Your task to perform on an android device: Clear the cart on target. Add macbook pro to the cart on target, then select checkout. Image 0: 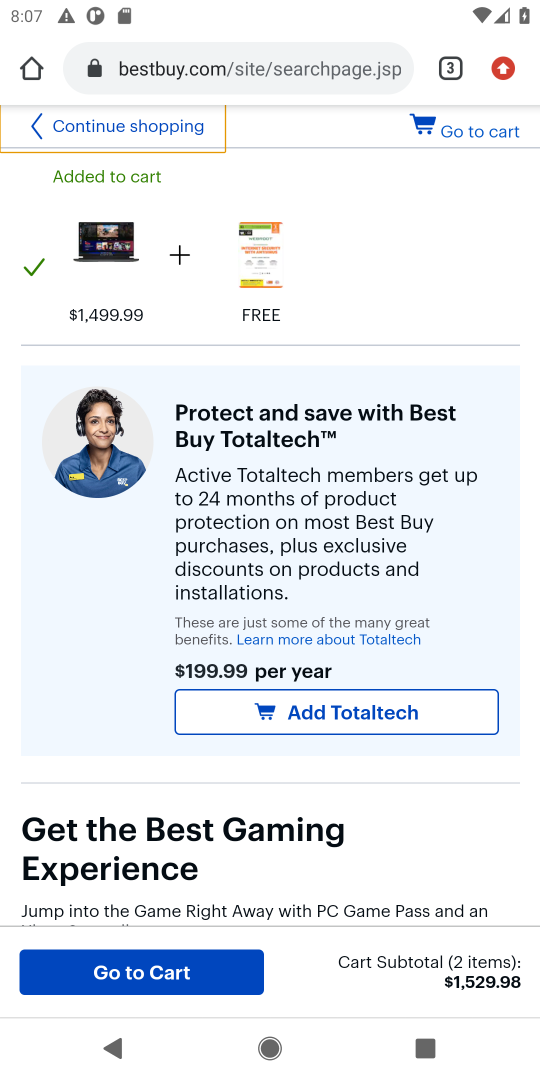
Step 0: press home button
Your task to perform on an android device: Clear the cart on target. Add macbook pro to the cart on target, then select checkout. Image 1: 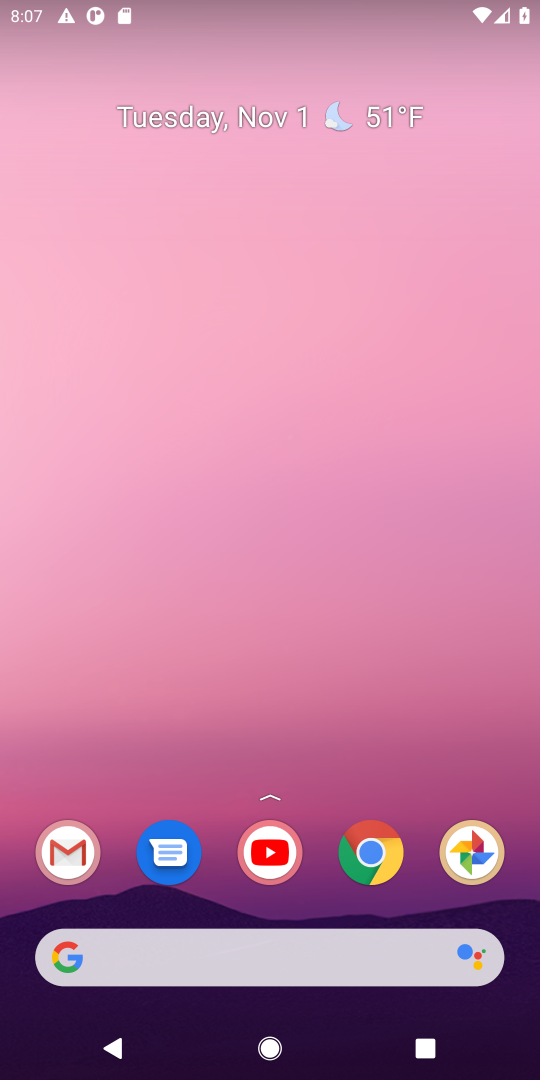
Step 1: drag from (314, 897) to (239, 91)
Your task to perform on an android device: Clear the cart on target. Add macbook pro to the cart on target, then select checkout. Image 2: 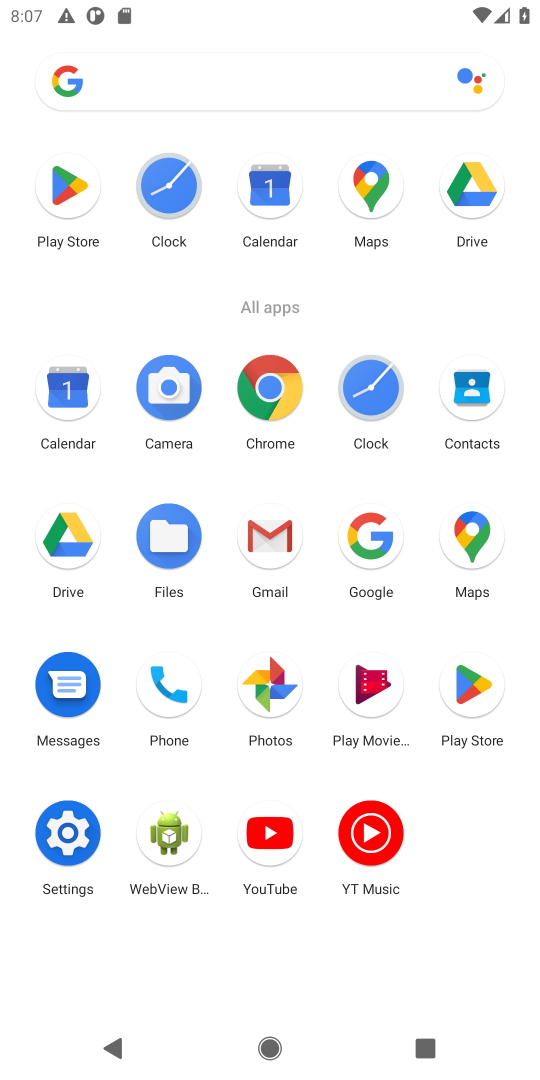
Step 2: click (383, 572)
Your task to perform on an android device: Clear the cart on target. Add macbook pro to the cart on target, then select checkout. Image 3: 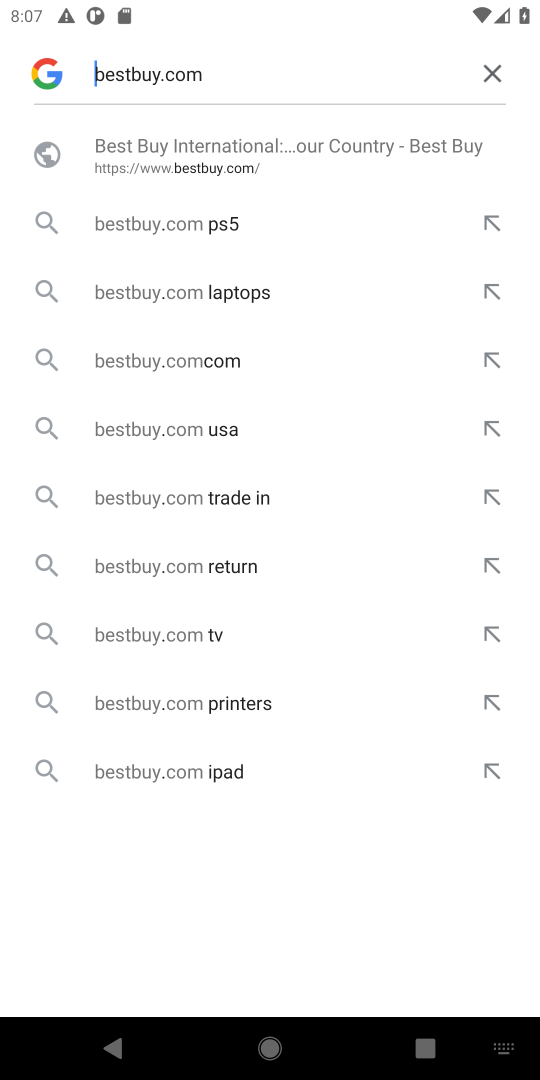
Step 3: click (487, 81)
Your task to perform on an android device: Clear the cart on target. Add macbook pro to the cart on target, then select checkout. Image 4: 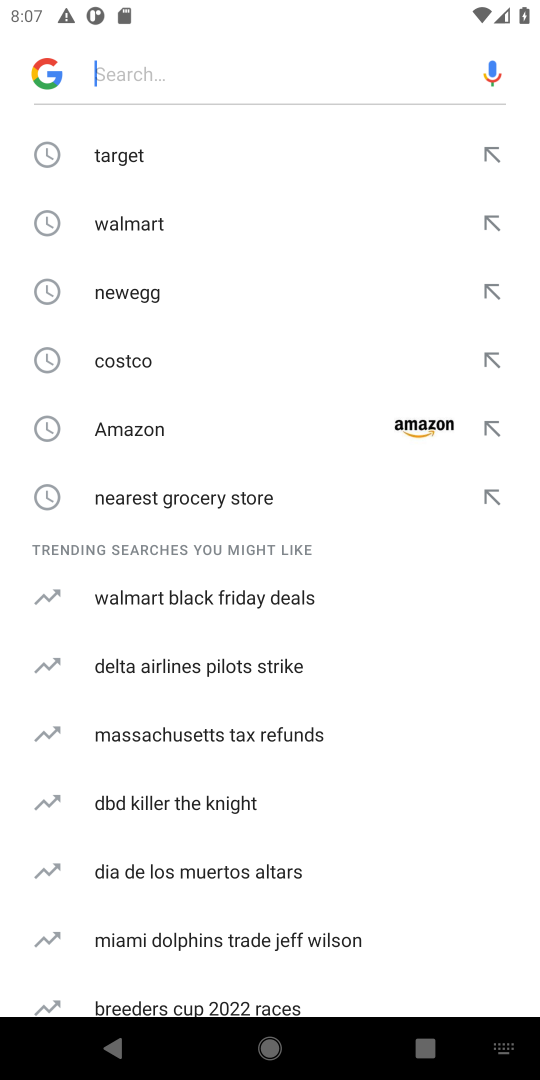
Step 4: type "target"
Your task to perform on an android device: Clear the cart on target. Add macbook pro to the cart on target, then select checkout. Image 5: 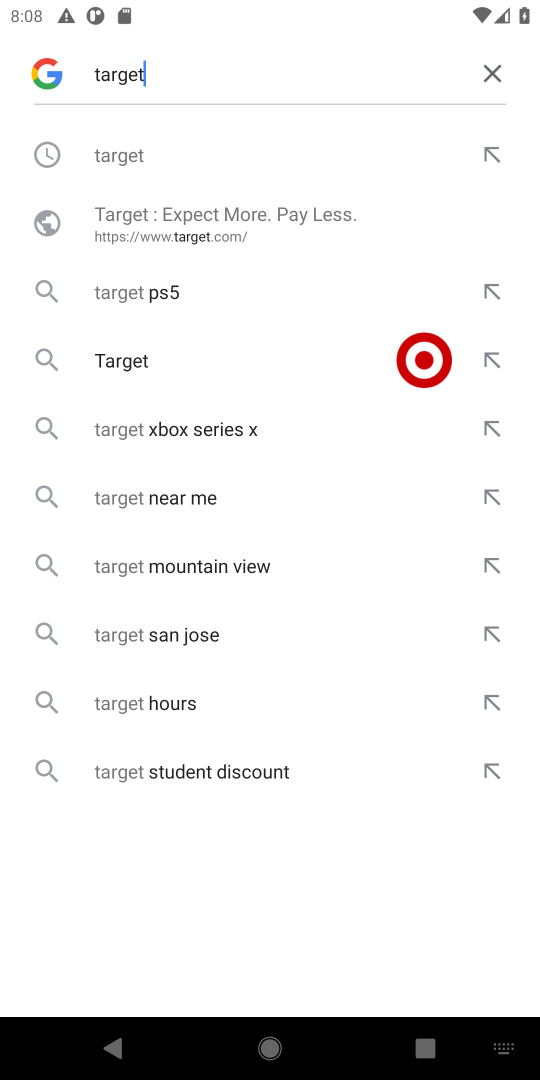
Step 5: click (350, 126)
Your task to perform on an android device: Clear the cart on target. Add macbook pro to the cart on target, then select checkout. Image 6: 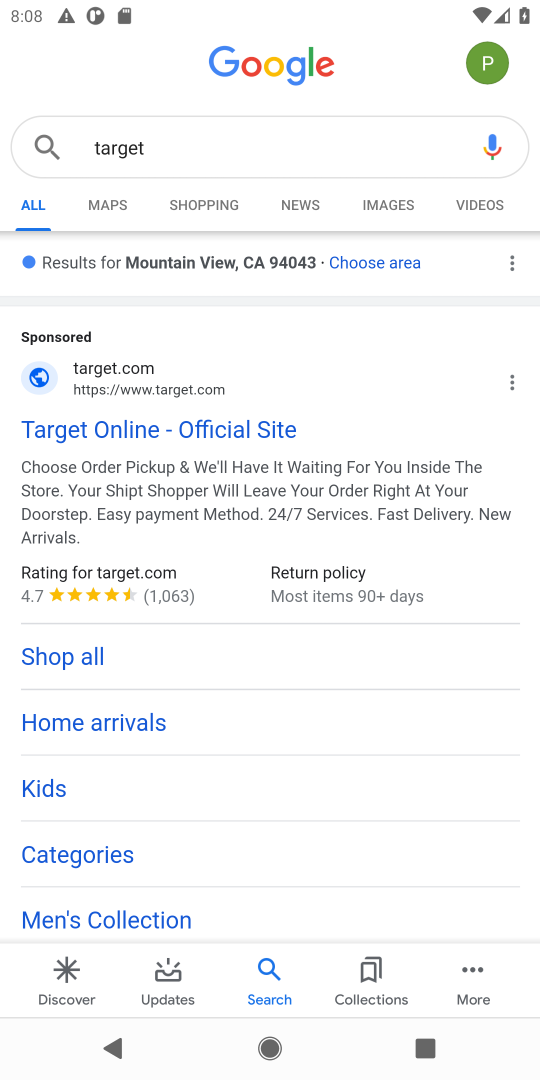
Step 6: click (146, 436)
Your task to perform on an android device: Clear the cart on target. Add macbook pro to the cart on target, then select checkout. Image 7: 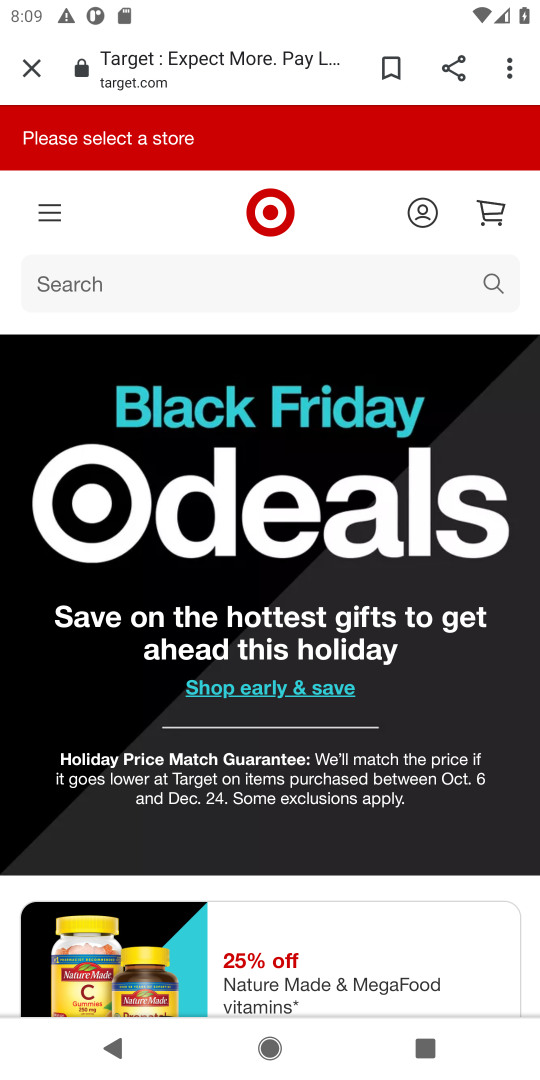
Step 7: click (239, 283)
Your task to perform on an android device: Clear the cart on target. Add macbook pro to the cart on target, then select checkout. Image 8: 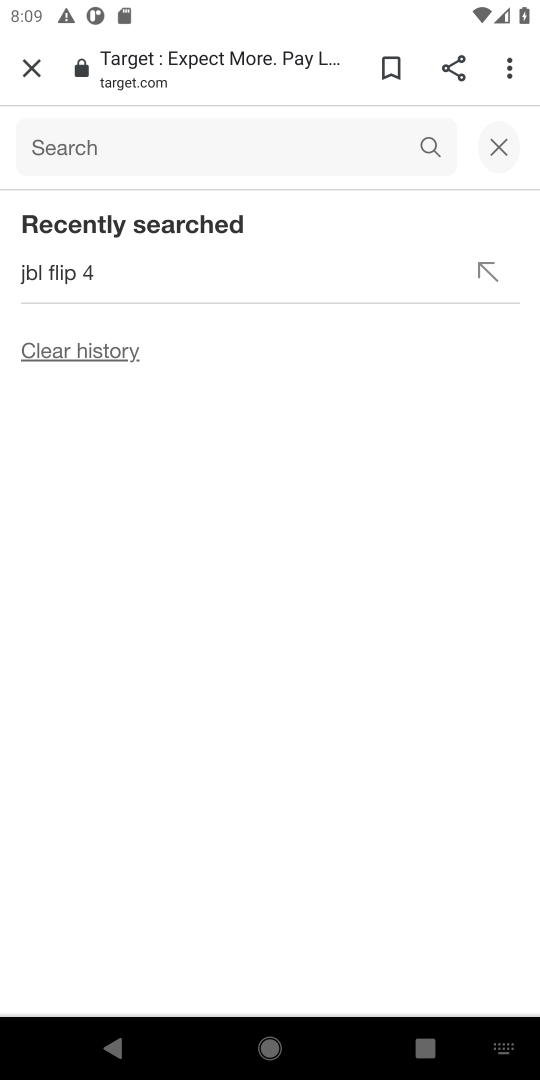
Step 8: type "macbook pro"
Your task to perform on an android device: Clear the cart on target. Add macbook pro to the cart on target, then select checkout. Image 9: 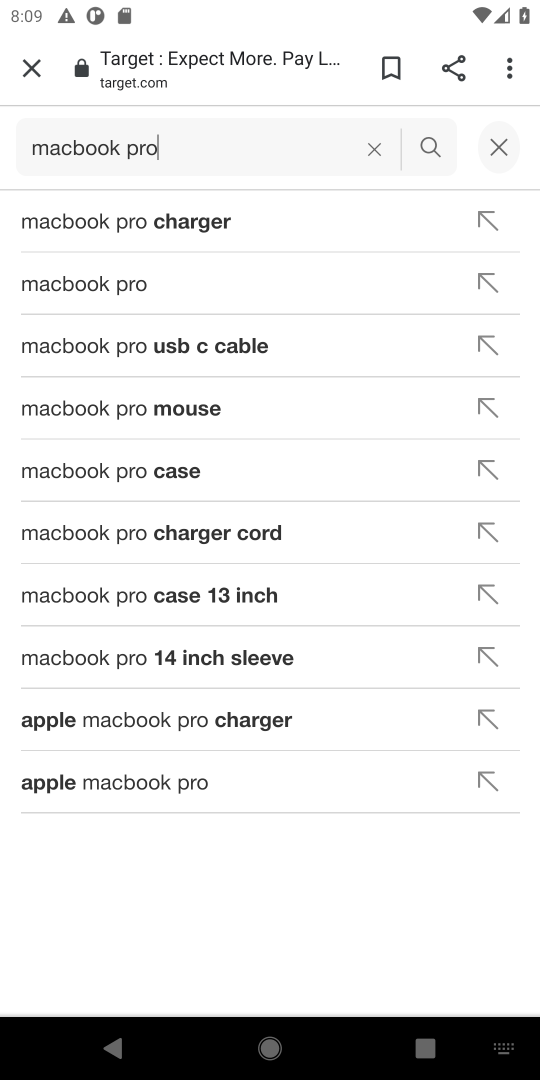
Step 9: click (92, 295)
Your task to perform on an android device: Clear the cart on target. Add macbook pro to the cart on target, then select checkout. Image 10: 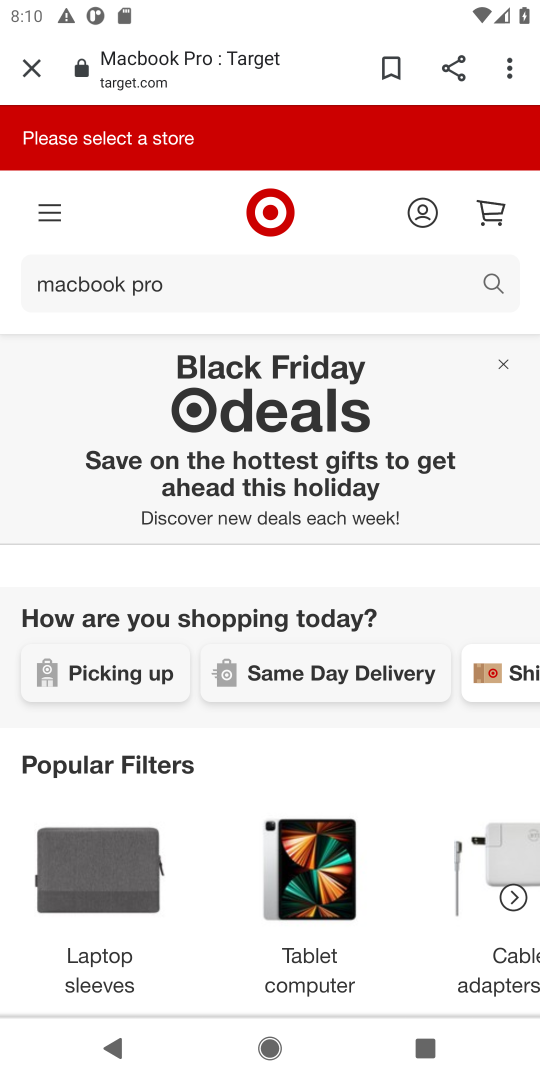
Step 10: drag from (196, 825) to (197, 358)
Your task to perform on an android device: Clear the cart on target. Add macbook pro to the cart on target, then select checkout. Image 11: 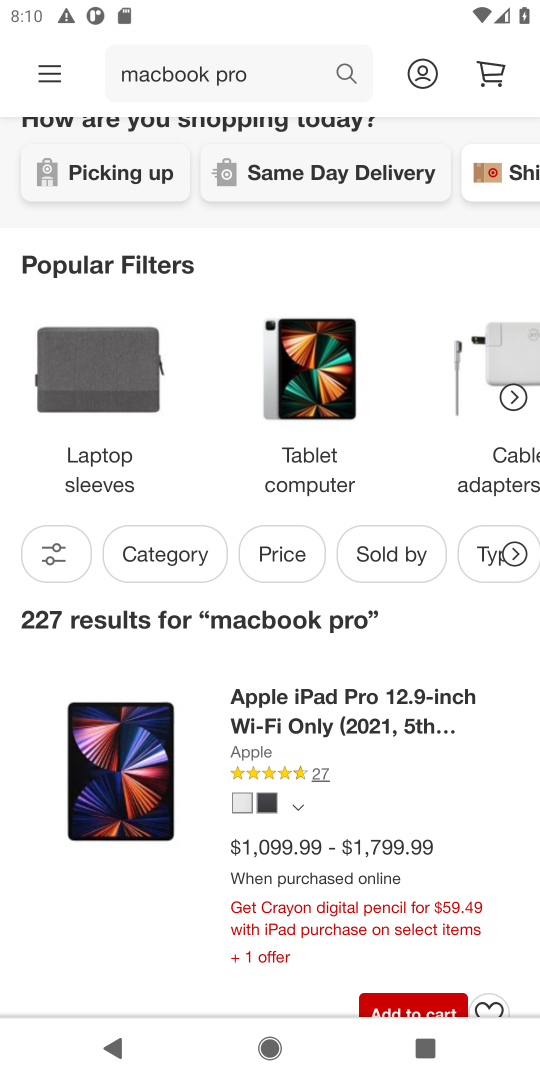
Step 11: click (146, 750)
Your task to perform on an android device: Clear the cart on target. Add macbook pro to the cart on target, then select checkout. Image 12: 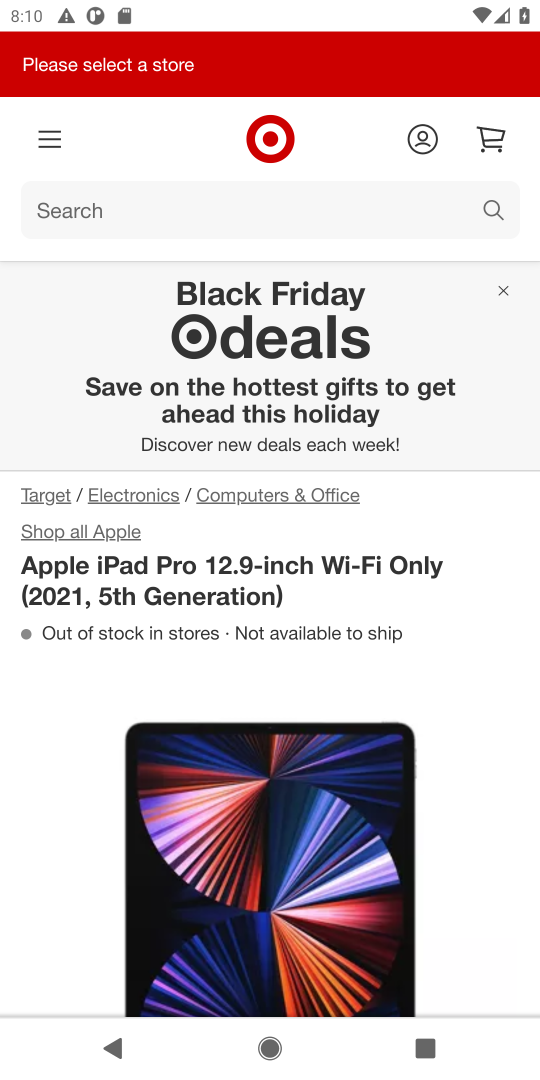
Step 12: drag from (189, 886) to (225, 404)
Your task to perform on an android device: Clear the cart on target. Add macbook pro to the cart on target, then select checkout. Image 13: 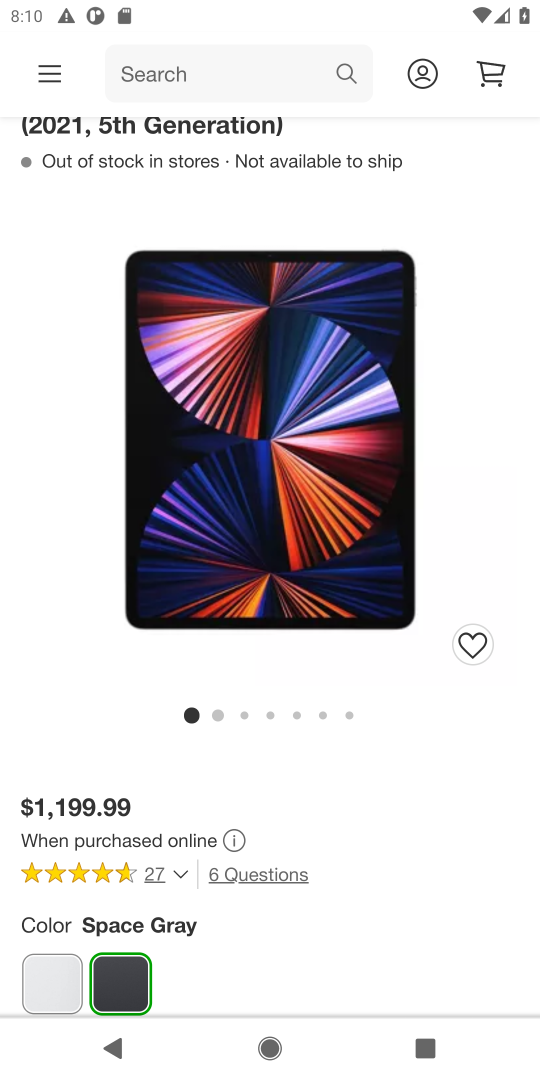
Step 13: drag from (348, 787) to (450, 344)
Your task to perform on an android device: Clear the cart on target. Add macbook pro to the cart on target, then select checkout. Image 14: 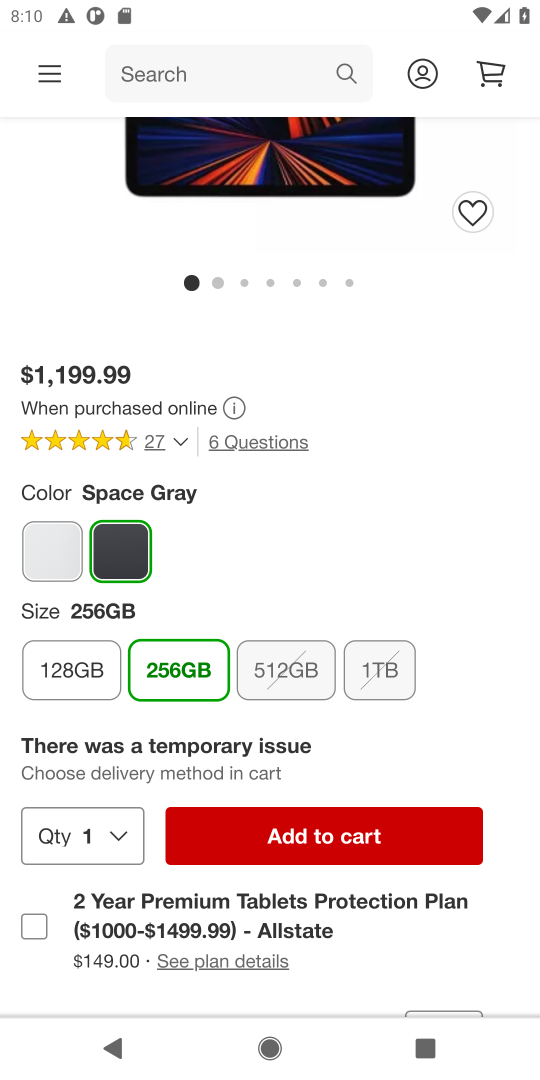
Step 14: click (332, 836)
Your task to perform on an android device: Clear the cart on target. Add macbook pro to the cart on target, then select checkout. Image 15: 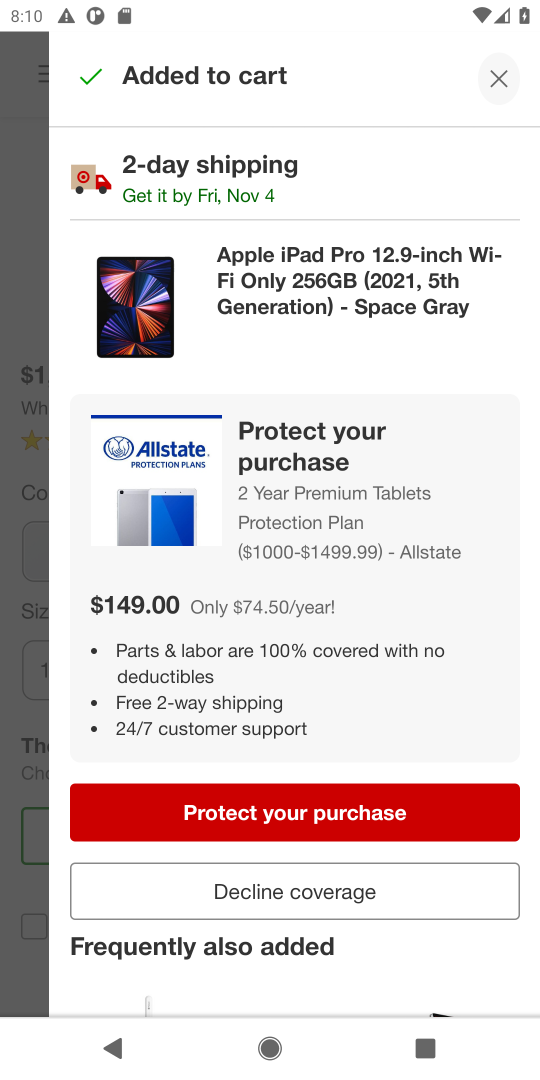
Step 15: task complete